Your task to perform on an android device: Open my contact list Image 0: 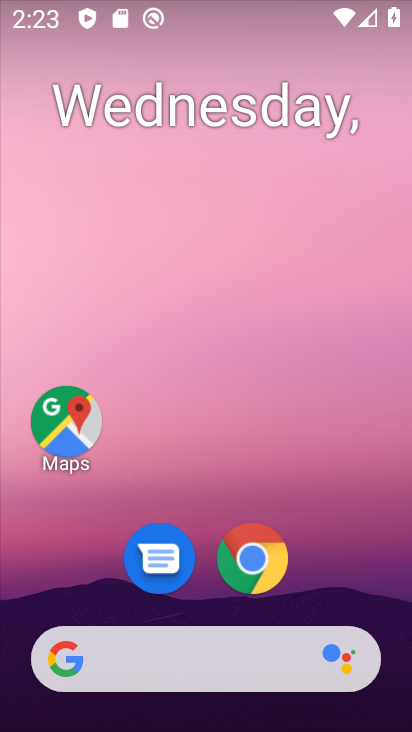
Step 0: drag from (394, 405) to (411, 95)
Your task to perform on an android device: Open my contact list Image 1: 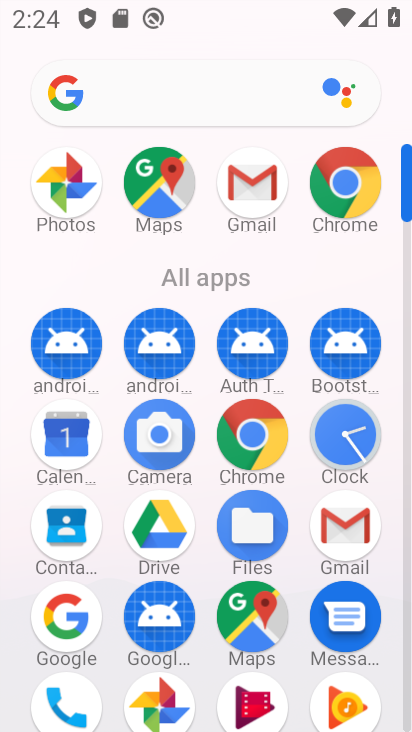
Step 1: click (80, 515)
Your task to perform on an android device: Open my contact list Image 2: 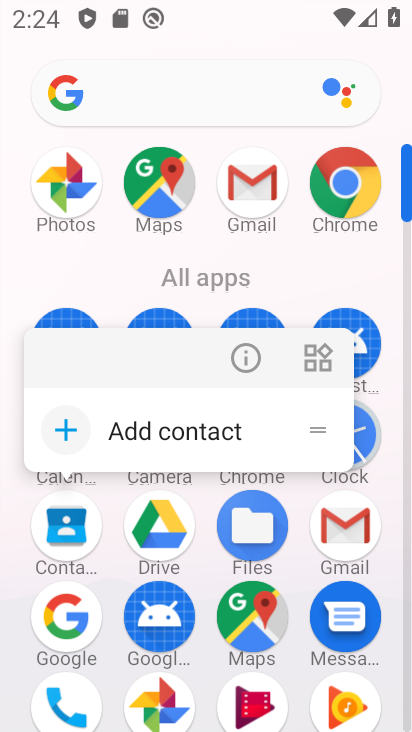
Step 2: click (79, 523)
Your task to perform on an android device: Open my contact list Image 3: 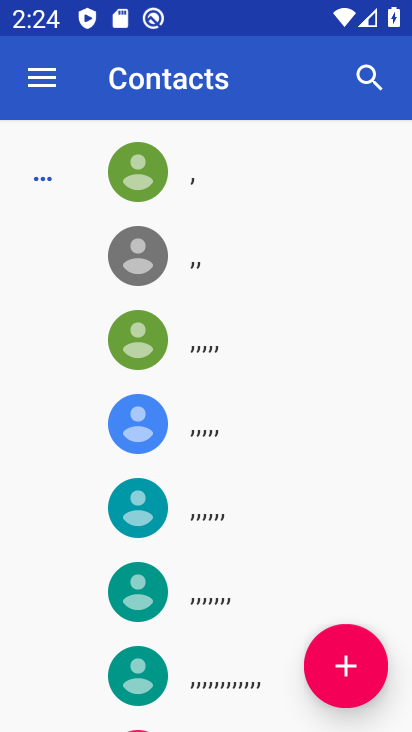
Step 3: task complete